Your task to perform on an android device: Clear all items from cart on newegg.com. Image 0: 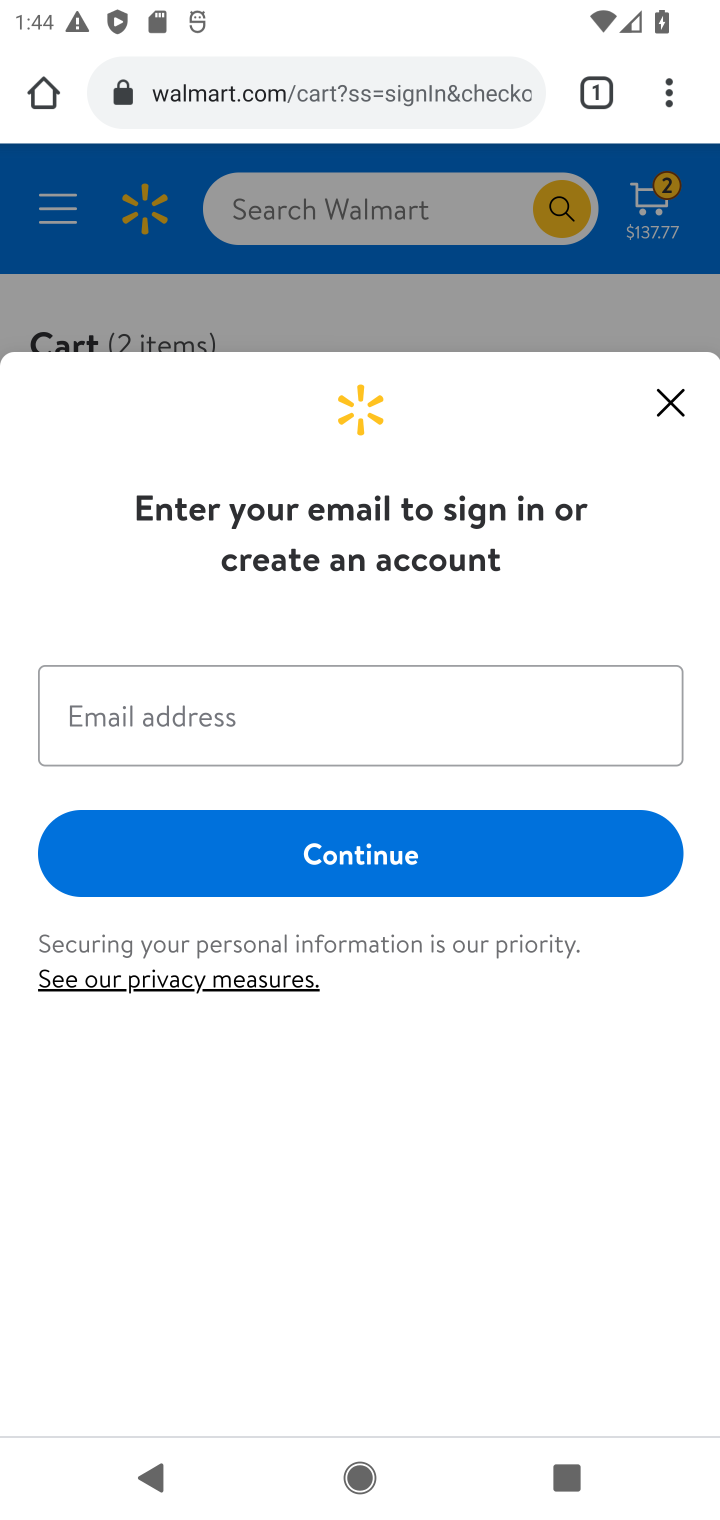
Step 0: click (311, 84)
Your task to perform on an android device: Clear all items from cart on newegg.com. Image 1: 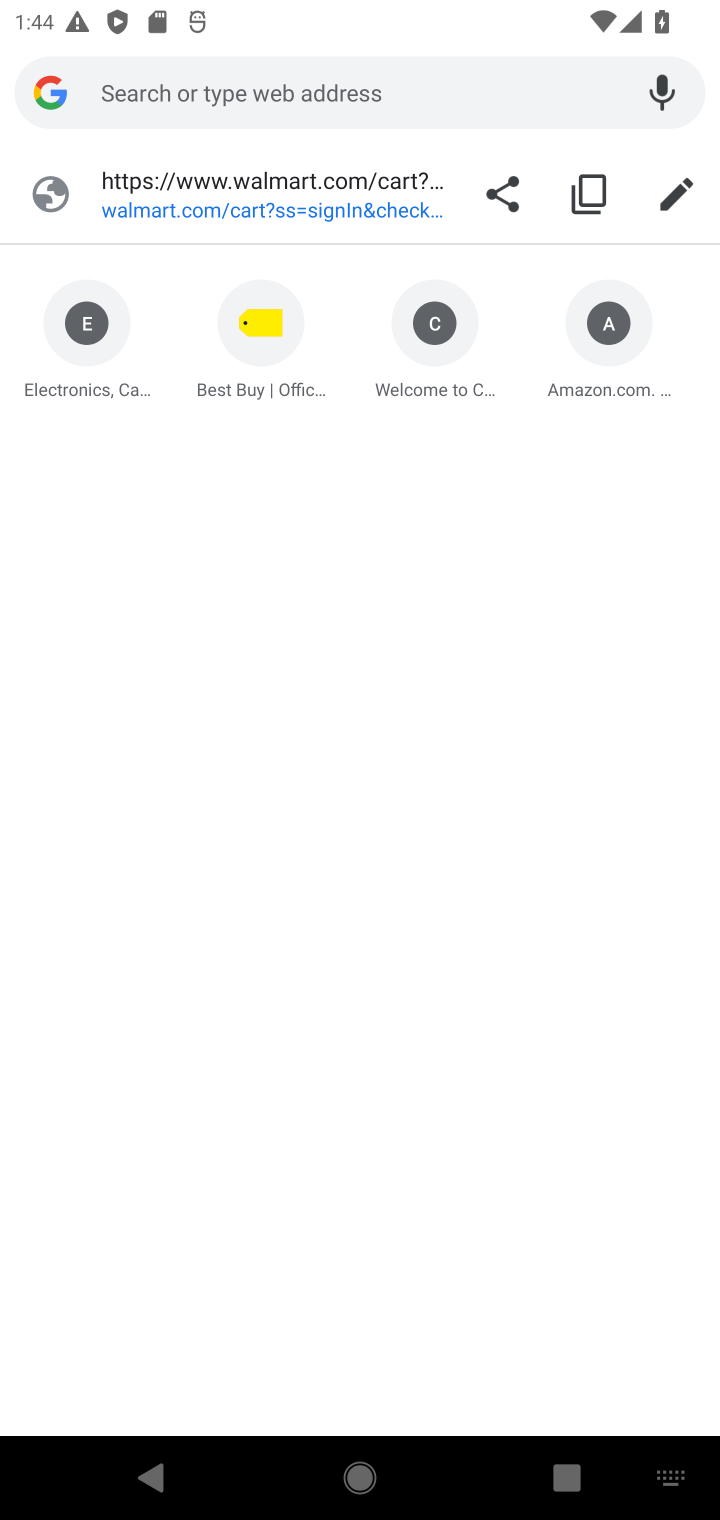
Step 1: type "newegg.com"
Your task to perform on an android device: Clear all items from cart on newegg.com. Image 2: 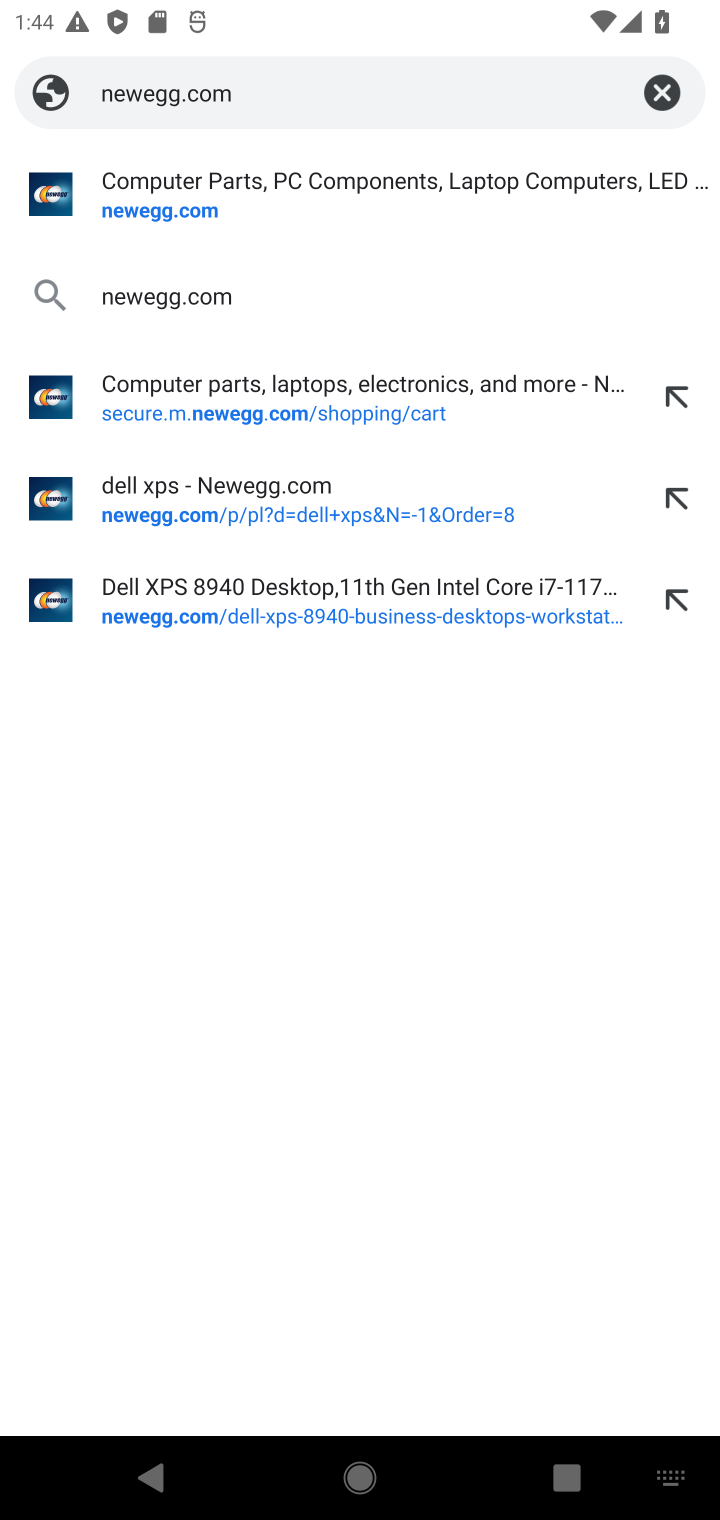
Step 2: click (134, 222)
Your task to perform on an android device: Clear all items from cart on newegg.com. Image 3: 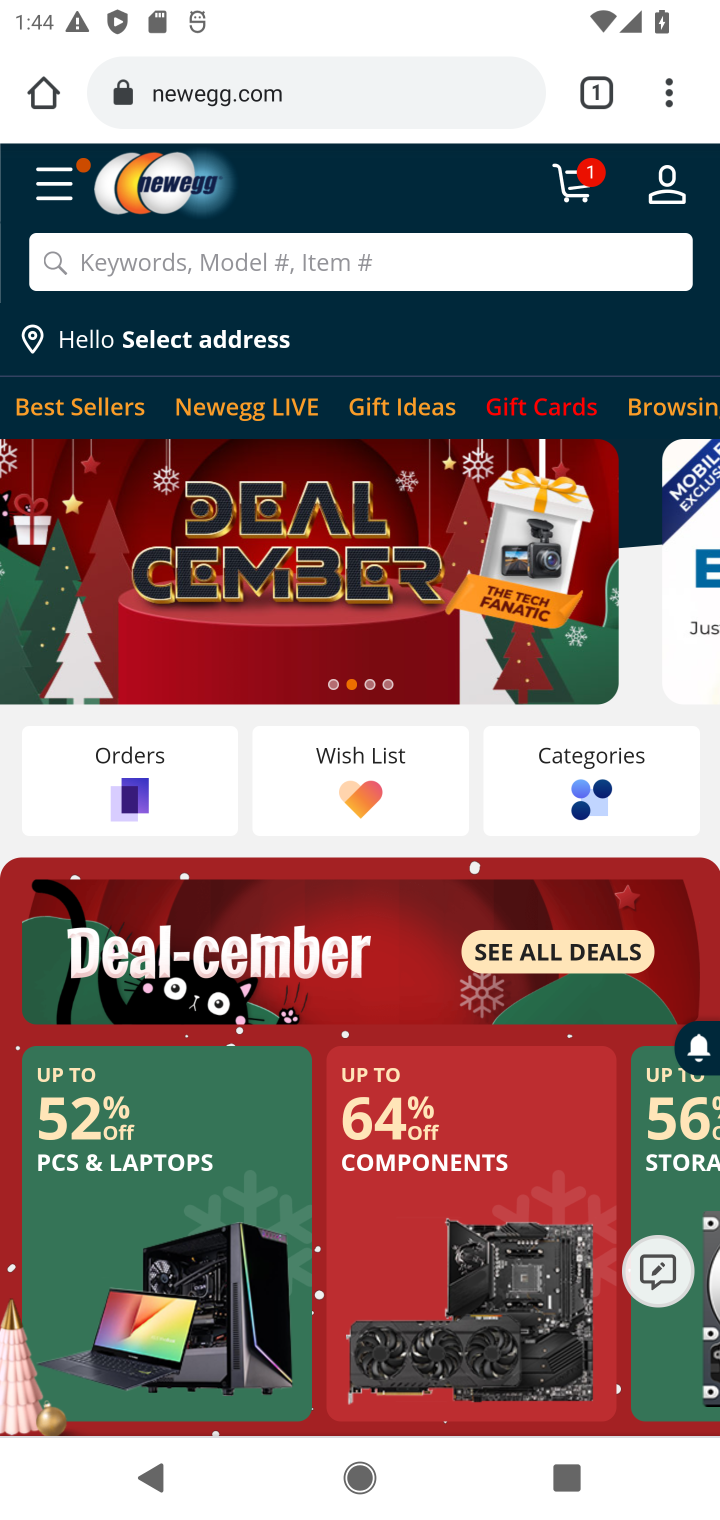
Step 3: click (579, 184)
Your task to perform on an android device: Clear all items from cart on newegg.com. Image 4: 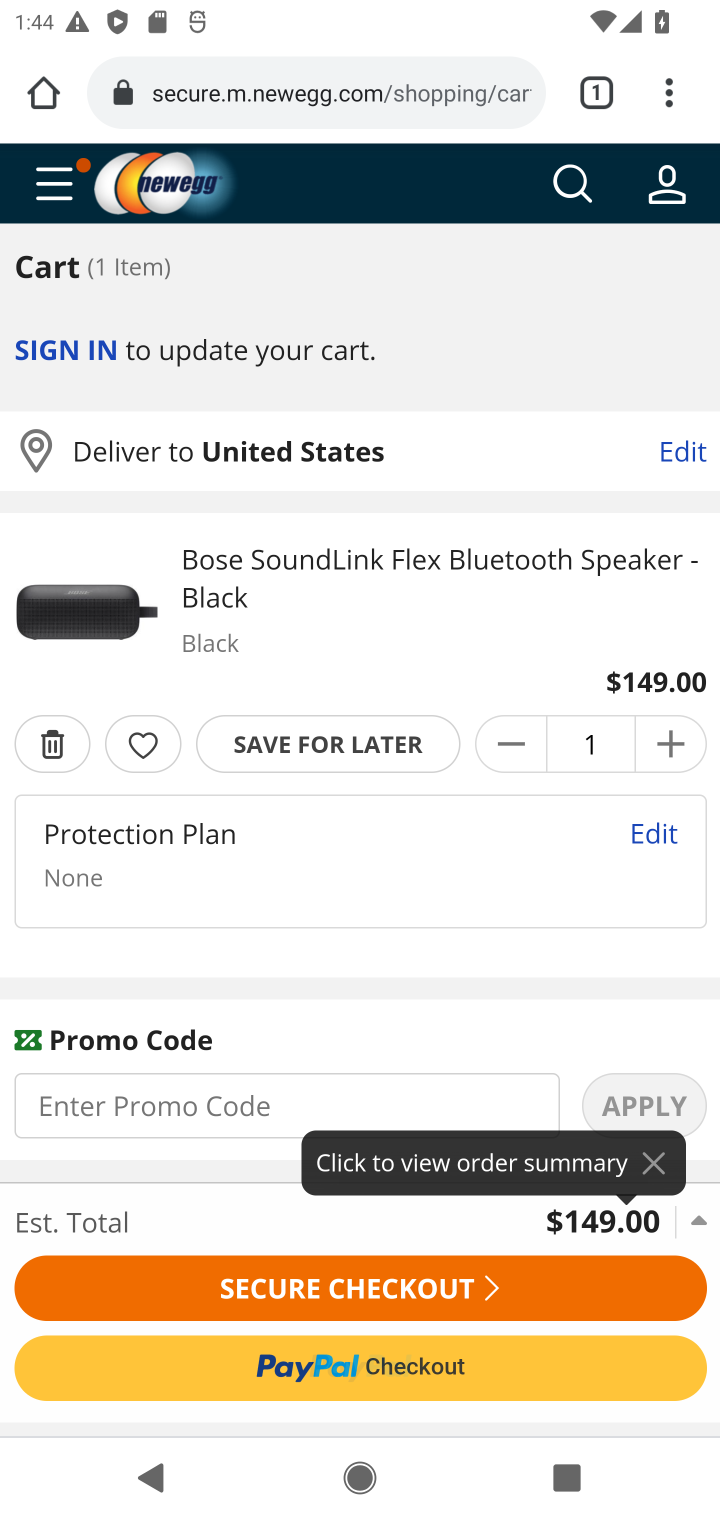
Step 4: click (54, 740)
Your task to perform on an android device: Clear all items from cart on newegg.com. Image 5: 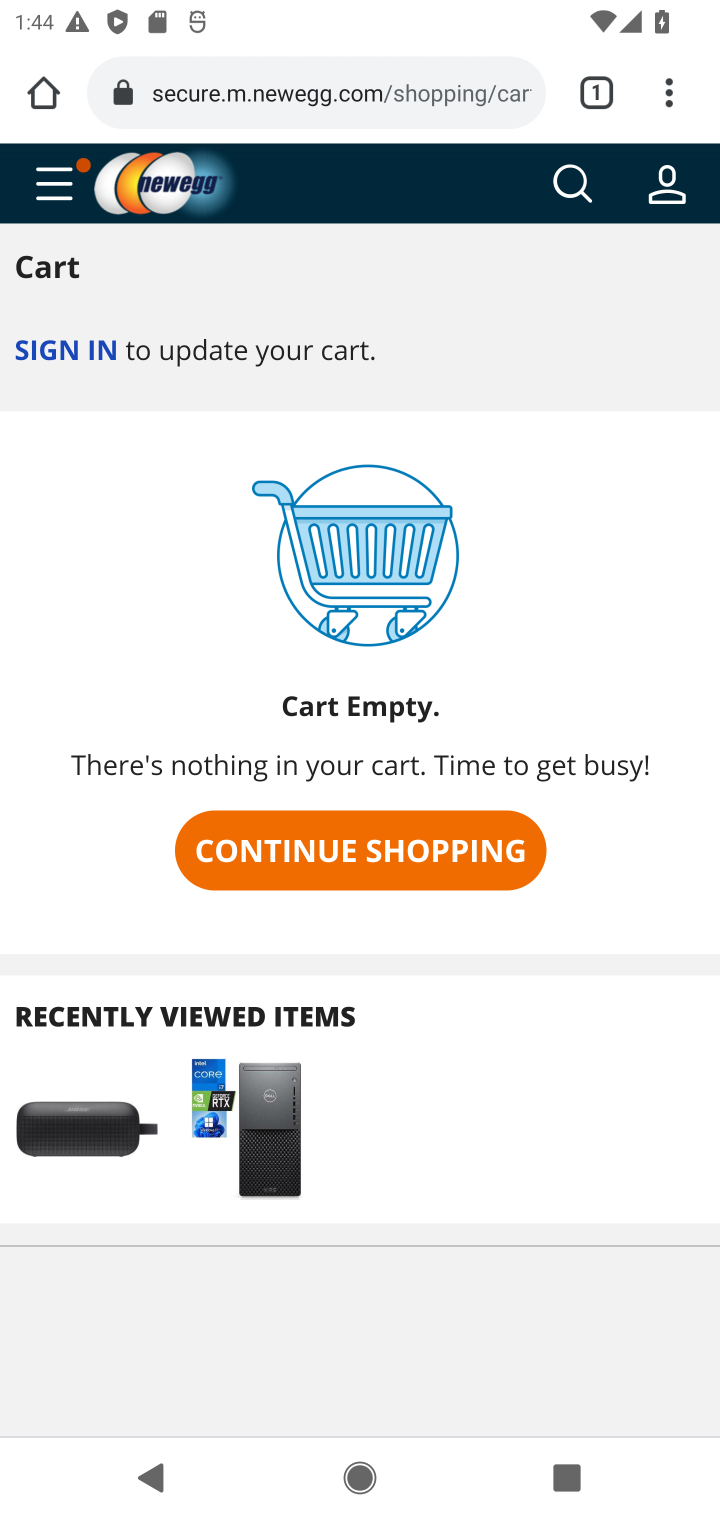
Step 5: task complete